Your task to perform on an android device: Open privacy settings Image 0: 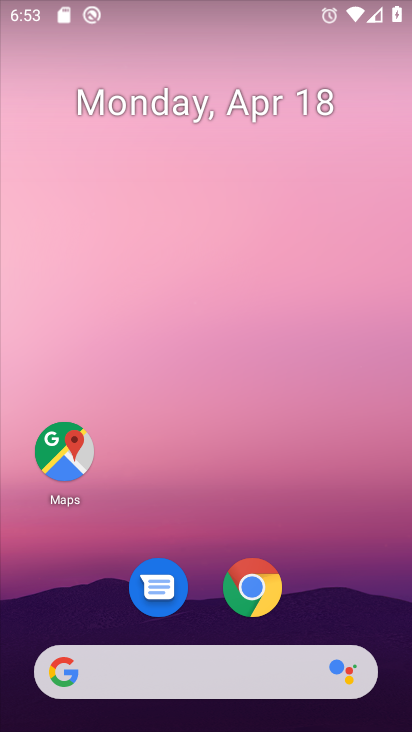
Step 0: drag from (320, 591) to (116, 123)
Your task to perform on an android device: Open privacy settings Image 1: 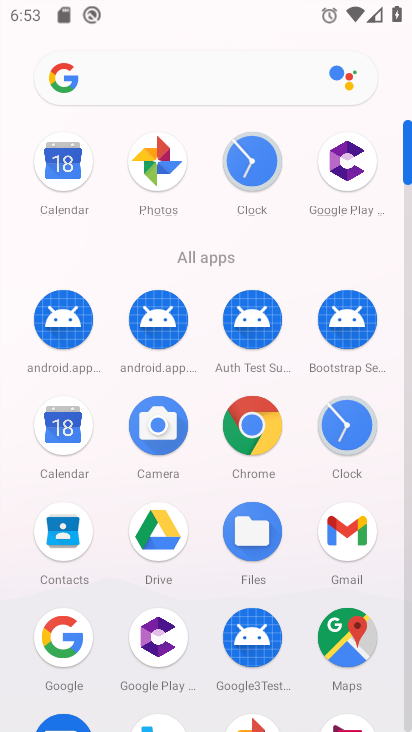
Step 1: click (409, 462)
Your task to perform on an android device: Open privacy settings Image 2: 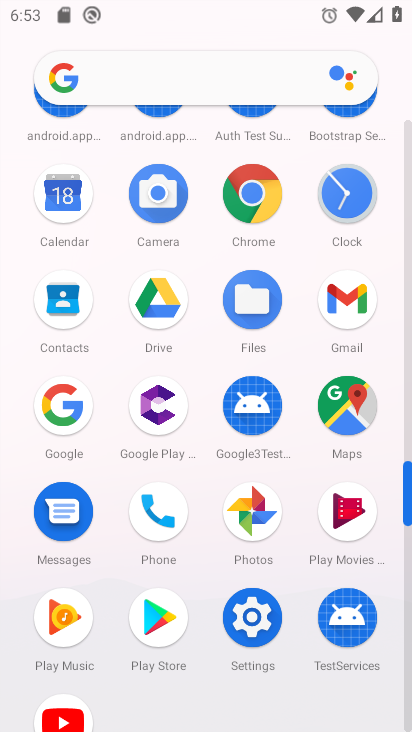
Step 2: click (259, 606)
Your task to perform on an android device: Open privacy settings Image 3: 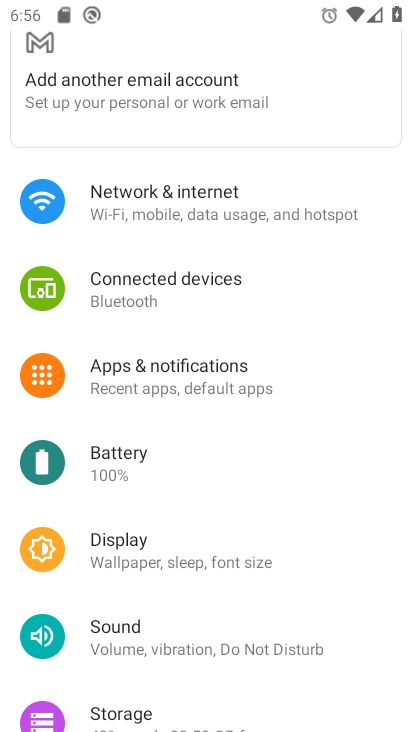
Step 3: drag from (354, 557) to (375, 128)
Your task to perform on an android device: Open privacy settings Image 4: 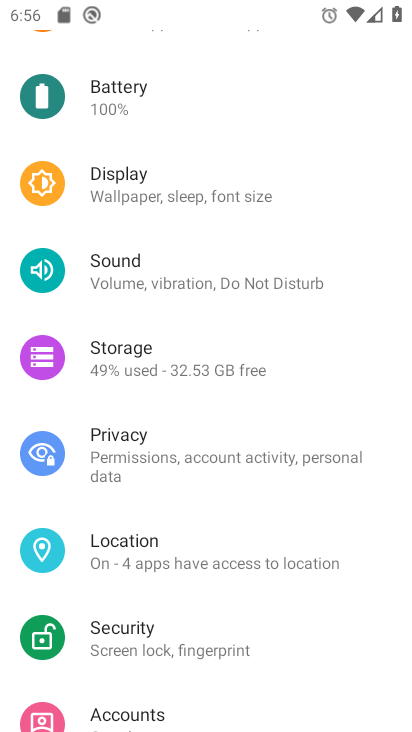
Step 4: drag from (259, 549) to (304, 160)
Your task to perform on an android device: Open privacy settings Image 5: 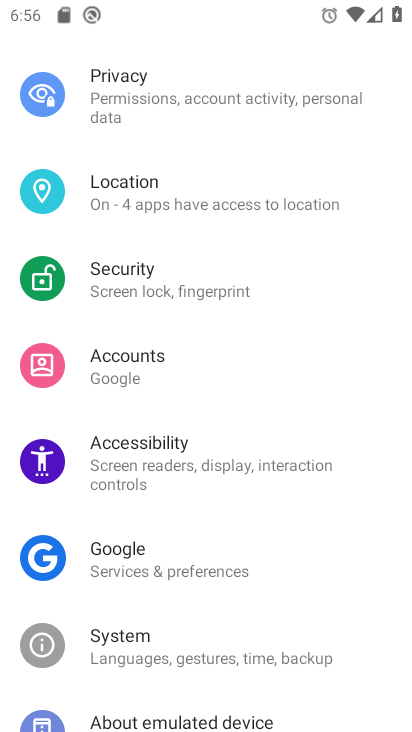
Step 5: click (268, 118)
Your task to perform on an android device: Open privacy settings Image 6: 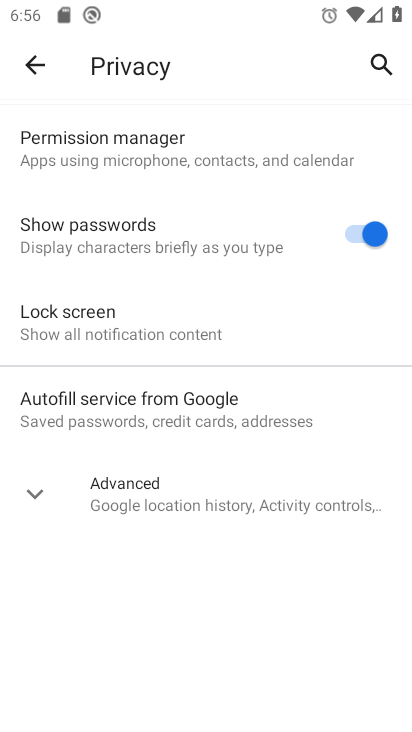
Step 6: task complete